Your task to perform on an android device: Open accessibility settings Image 0: 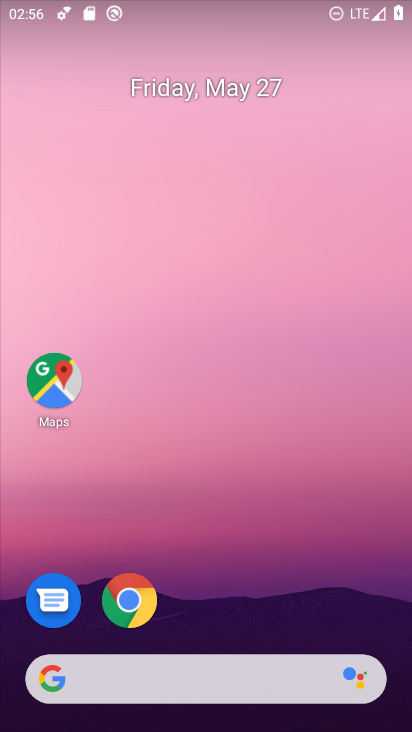
Step 0: drag from (212, 729) to (220, 202)
Your task to perform on an android device: Open accessibility settings Image 1: 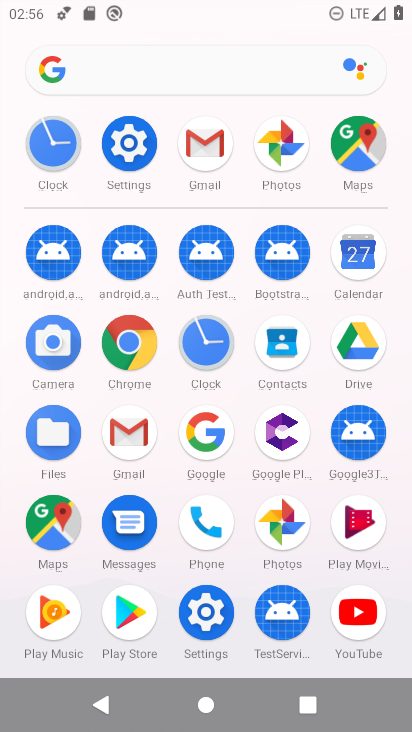
Step 1: click (130, 148)
Your task to perform on an android device: Open accessibility settings Image 2: 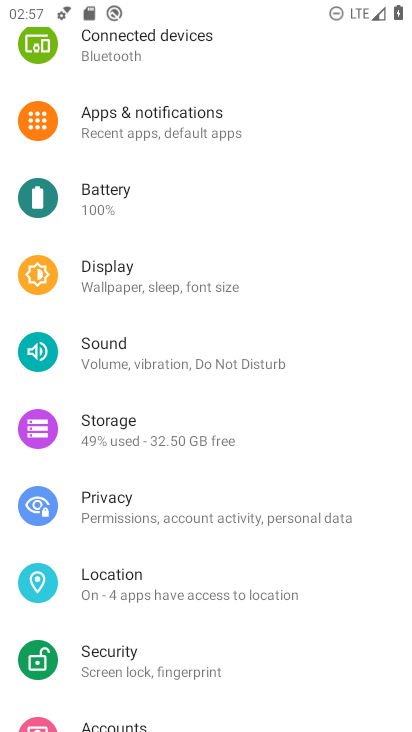
Step 2: drag from (204, 680) to (215, 318)
Your task to perform on an android device: Open accessibility settings Image 3: 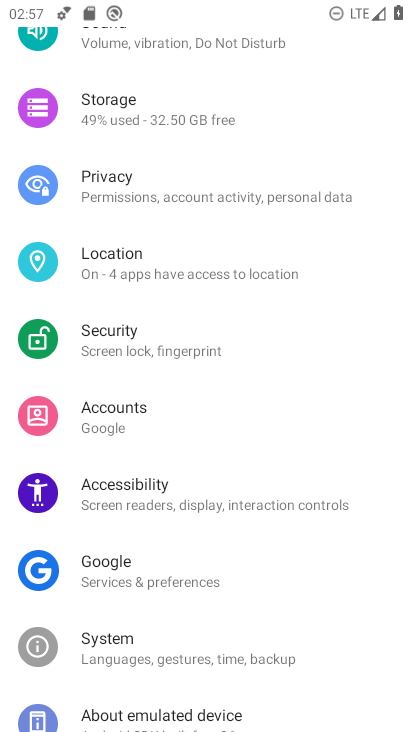
Step 3: click (157, 493)
Your task to perform on an android device: Open accessibility settings Image 4: 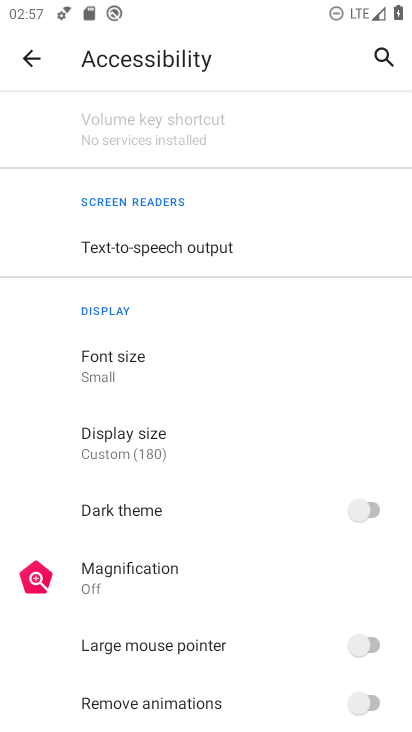
Step 4: task complete